Your task to perform on an android device: open a bookmark in the chrome app Image 0: 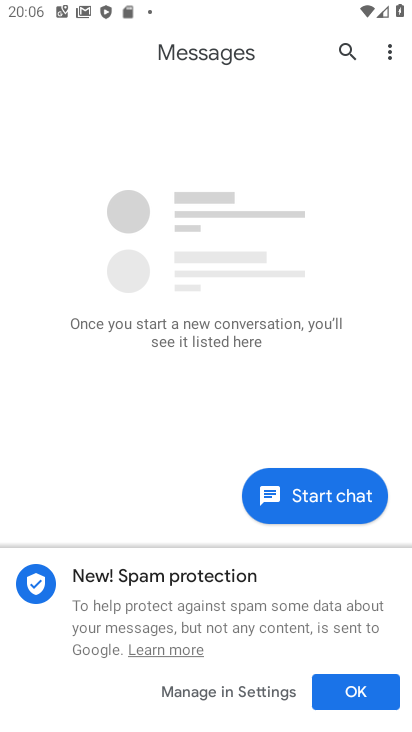
Step 0: task complete